Your task to perform on an android device: allow notifications from all sites in the chrome app Image 0: 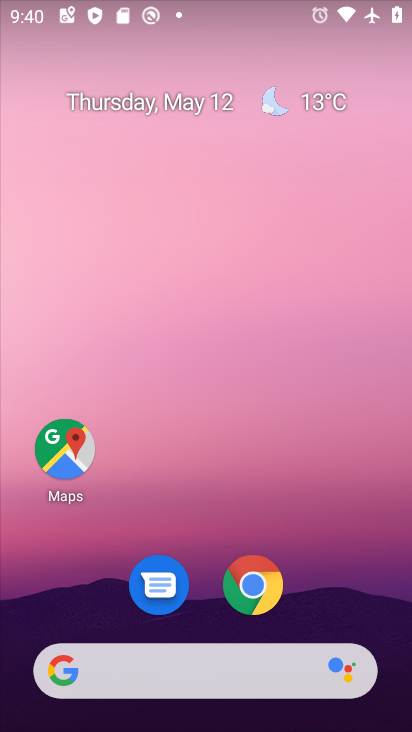
Step 0: click (265, 588)
Your task to perform on an android device: allow notifications from all sites in the chrome app Image 1: 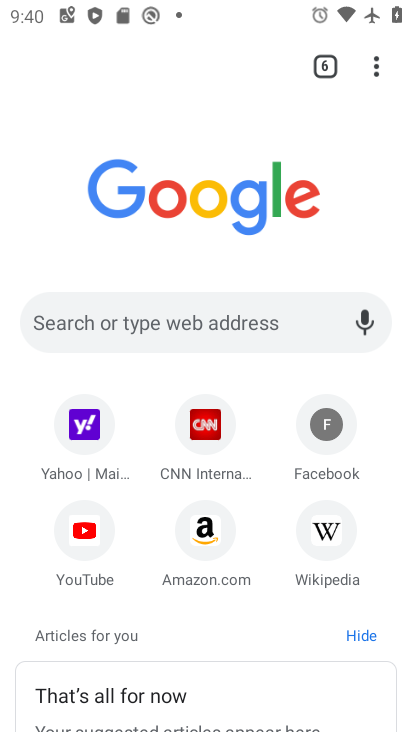
Step 1: click (376, 72)
Your task to perform on an android device: allow notifications from all sites in the chrome app Image 2: 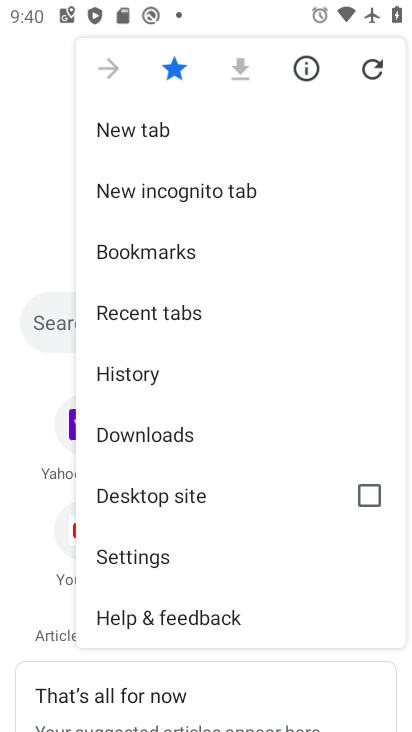
Step 2: click (169, 546)
Your task to perform on an android device: allow notifications from all sites in the chrome app Image 3: 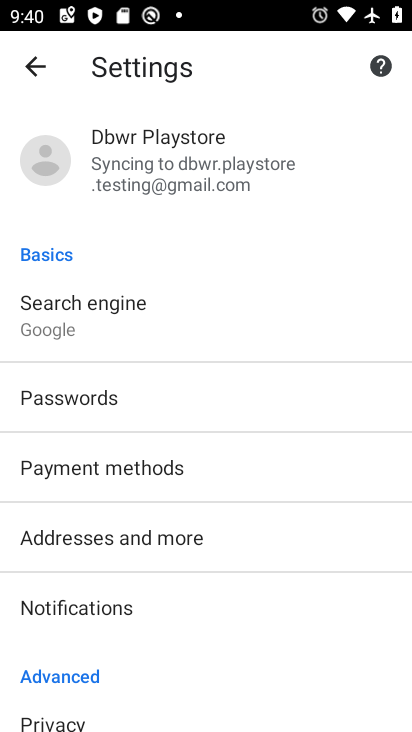
Step 3: click (169, 605)
Your task to perform on an android device: allow notifications from all sites in the chrome app Image 4: 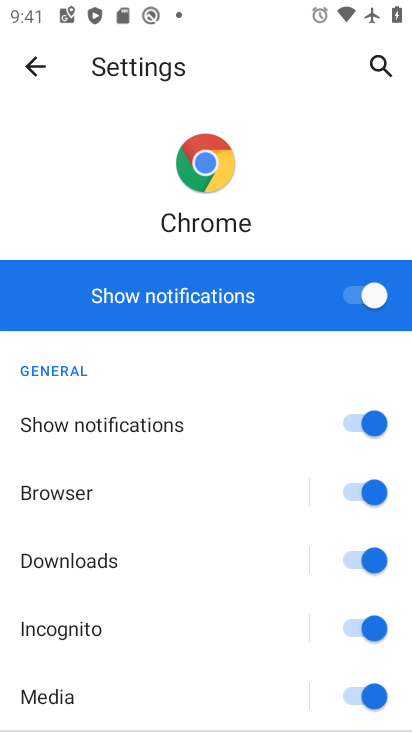
Step 4: task complete